Your task to perform on an android device: read, delete, or share a saved page in the chrome app Image 0: 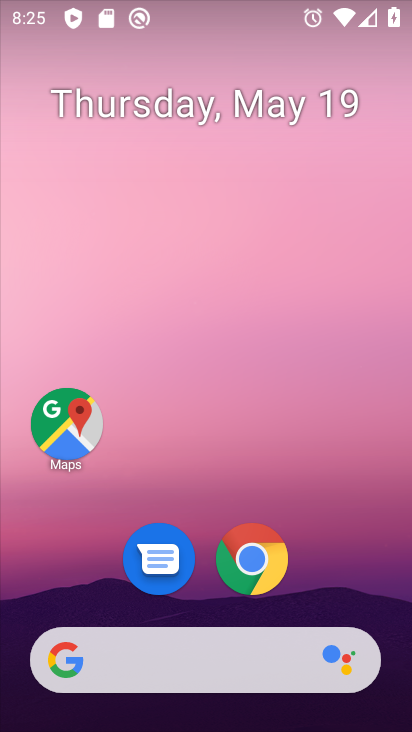
Step 0: press home button
Your task to perform on an android device: read, delete, or share a saved page in the chrome app Image 1: 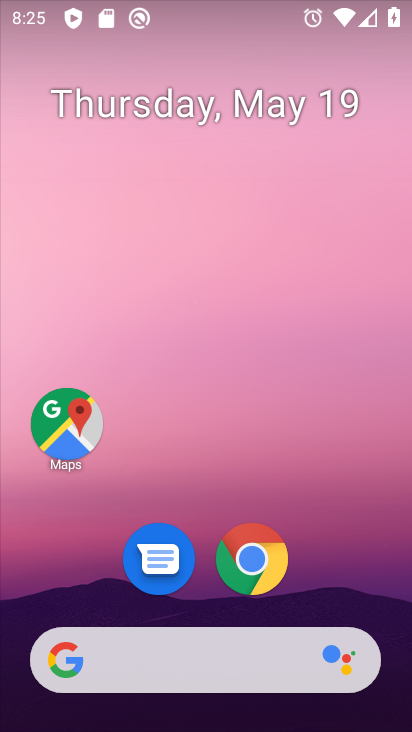
Step 1: click (261, 563)
Your task to perform on an android device: read, delete, or share a saved page in the chrome app Image 2: 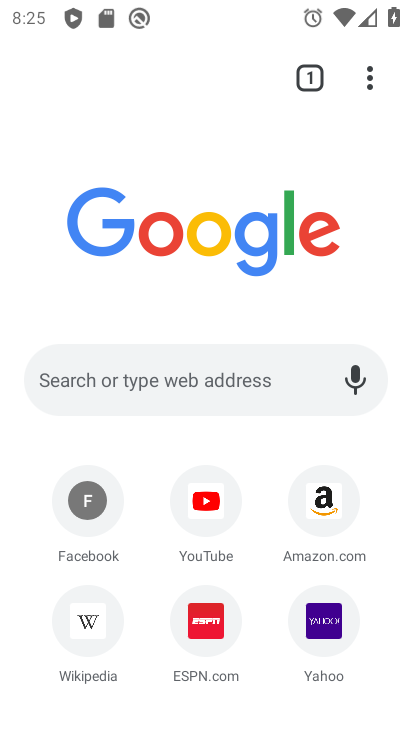
Step 2: click (364, 76)
Your task to perform on an android device: read, delete, or share a saved page in the chrome app Image 3: 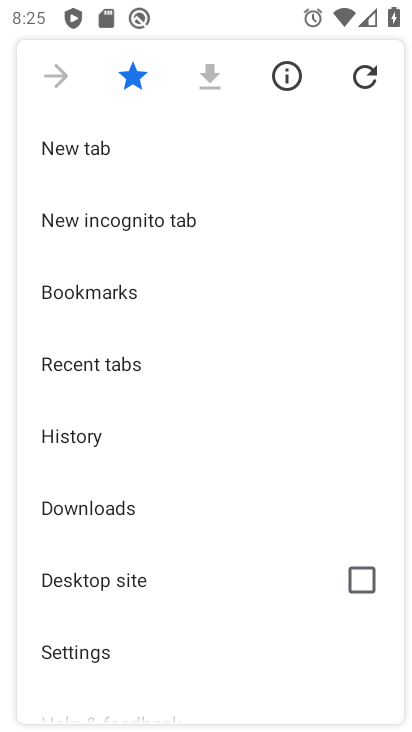
Step 3: click (123, 502)
Your task to perform on an android device: read, delete, or share a saved page in the chrome app Image 4: 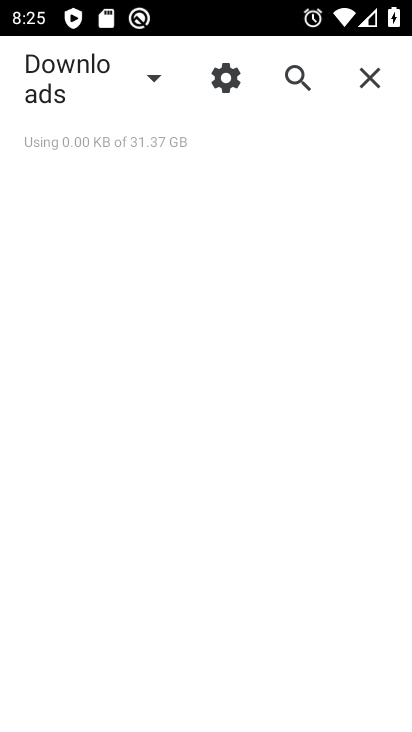
Step 4: click (150, 81)
Your task to perform on an android device: read, delete, or share a saved page in the chrome app Image 5: 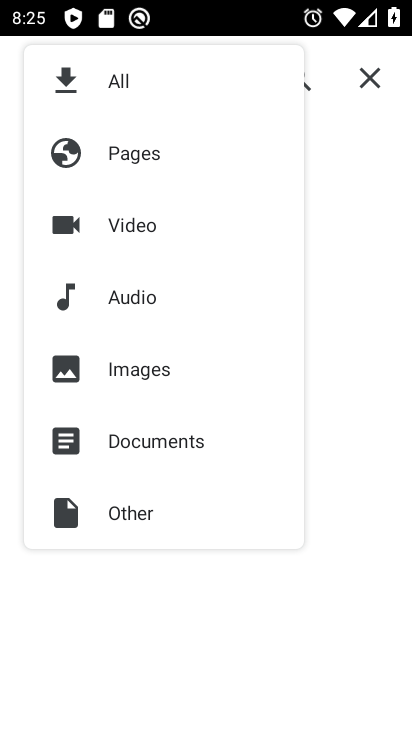
Step 5: click (104, 172)
Your task to perform on an android device: read, delete, or share a saved page in the chrome app Image 6: 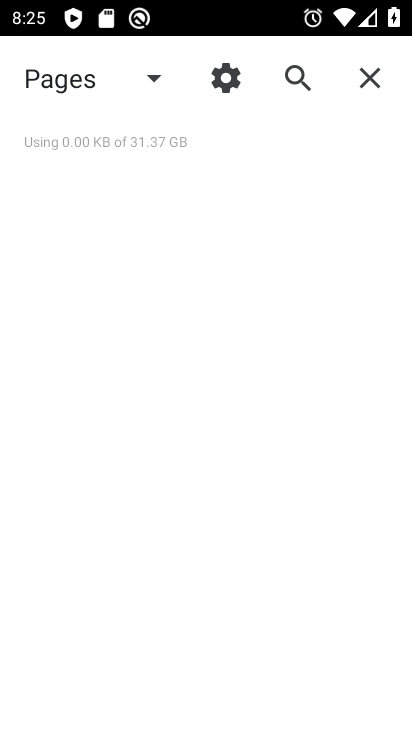
Step 6: task complete